Your task to perform on an android device: turn off improve location accuracy Image 0: 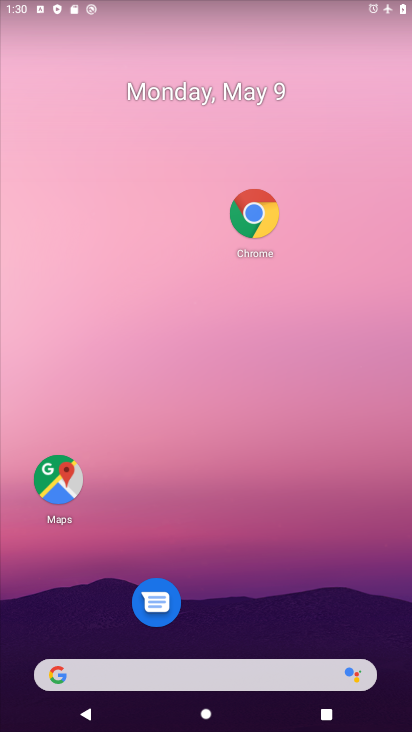
Step 0: drag from (324, 588) to (303, 65)
Your task to perform on an android device: turn off improve location accuracy Image 1: 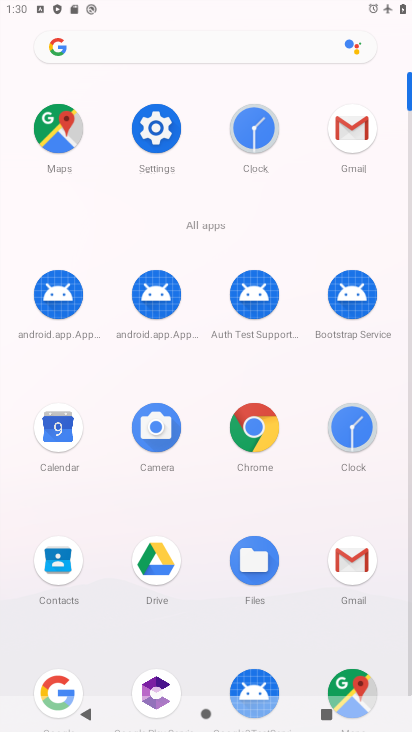
Step 1: click (144, 147)
Your task to perform on an android device: turn off improve location accuracy Image 2: 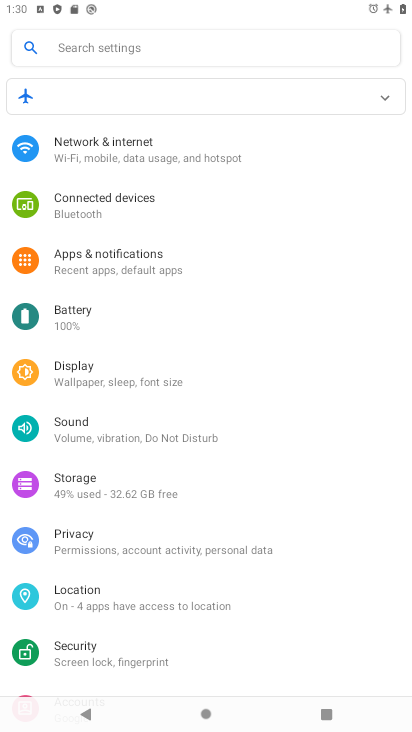
Step 2: click (144, 147)
Your task to perform on an android device: turn off improve location accuracy Image 3: 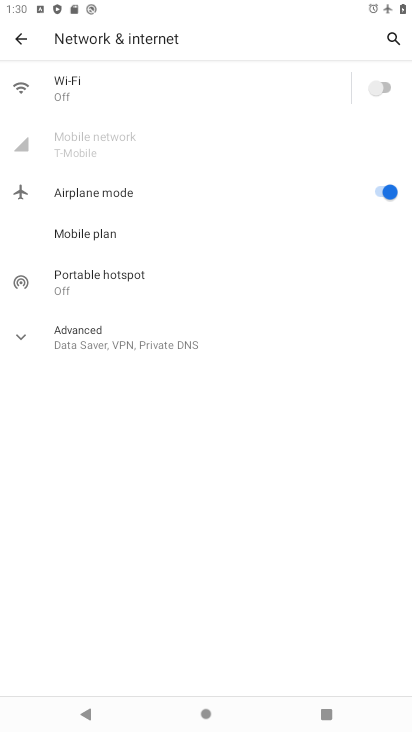
Step 3: click (22, 48)
Your task to perform on an android device: turn off improve location accuracy Image 4: 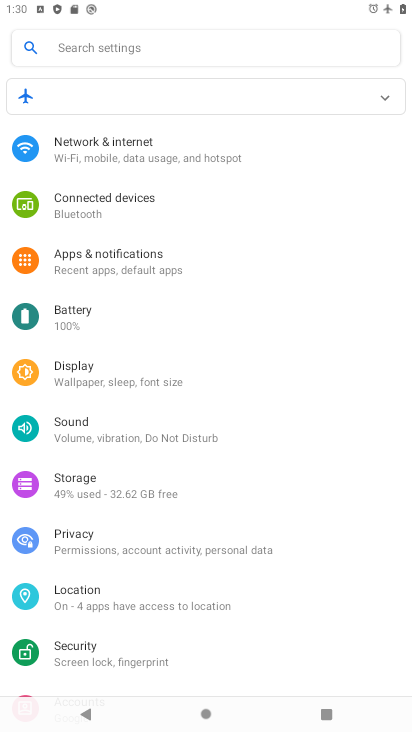
Step 4: click (69, 585)
Your task to perform on an android device: turn off improve location accuracy Image 5: 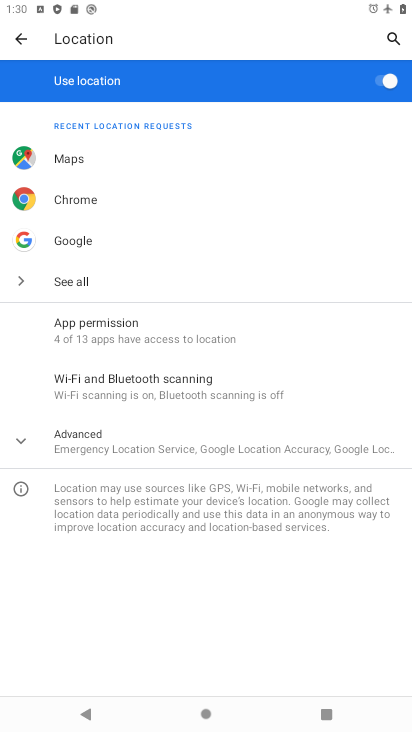
Step 5: click (114, 432)
Your task to perform on an android device: turn off improve location accuracy Image 6: 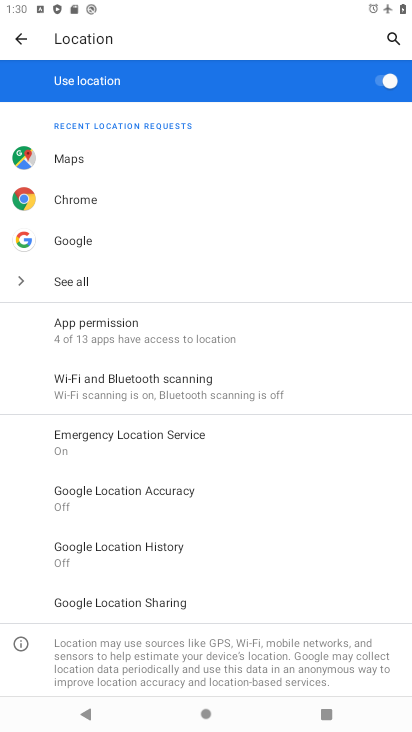
Step 6: task complete